Your task to perform on an android device: See recent photos Image 0: 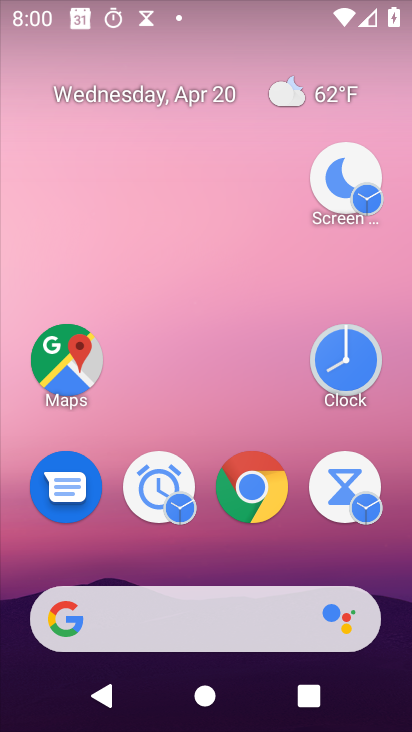
Step 0: drag from (360, 580) to (237, 185)
Your task to perform on an android device: See recent photos Image 1: 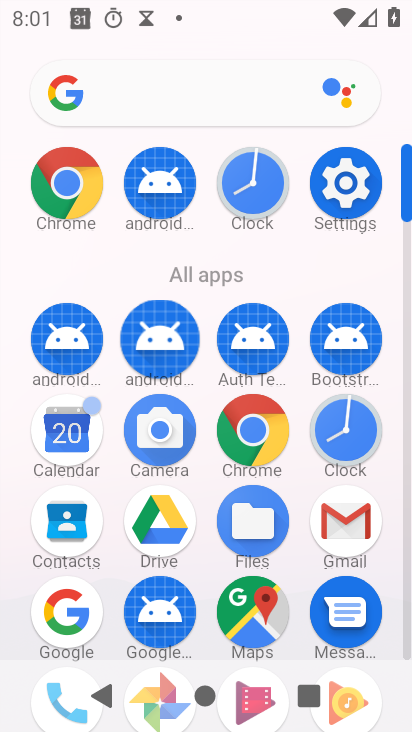
Step 1: drag from (211, 468) to (184, 160)
Your task to perform on an android device: See recent photos Image 2: 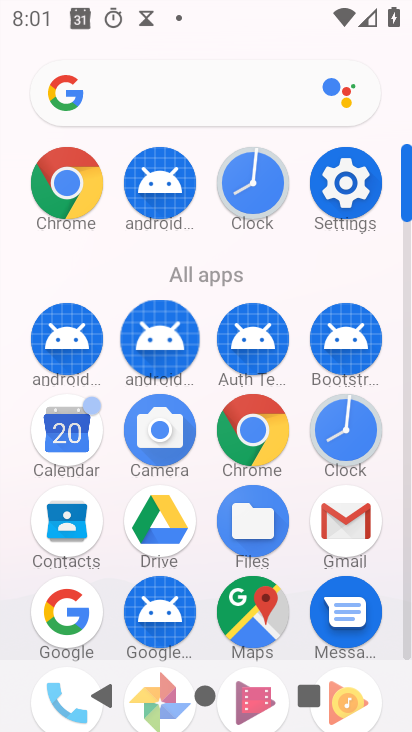
Step 2: drag from (281, 501) to (268, 118)
Your task to perform on an android device: See recent photos Image 3: 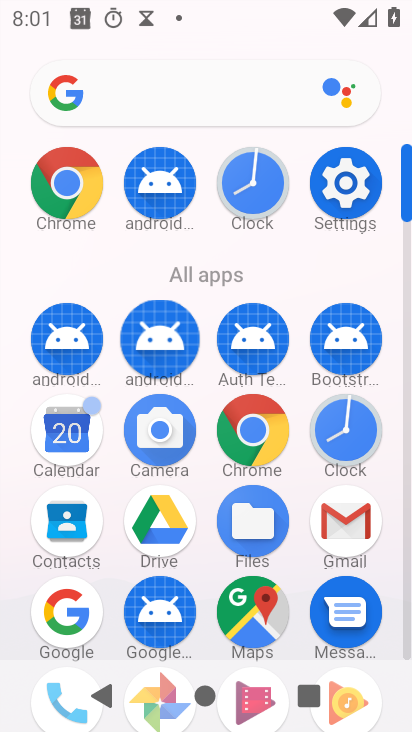
Step 3: click (196, 177)
Your task to perform on an android device: See recent photos Image 4: 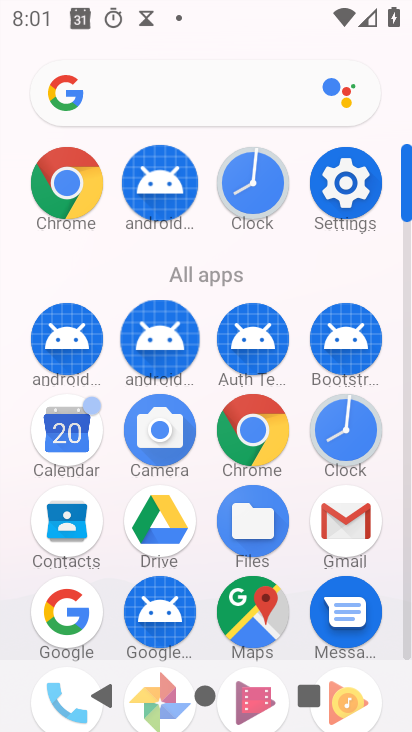
Step 4: click (184, 180)
Your task to perform on an android device: See recent photos Image 5: 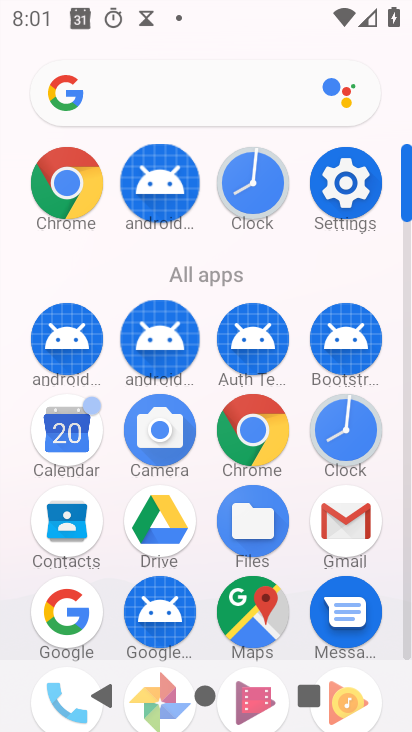
Step 5: drag from (202, 364) to (186, 232)
Your task to perform on an android device: See recent photos Image 6: 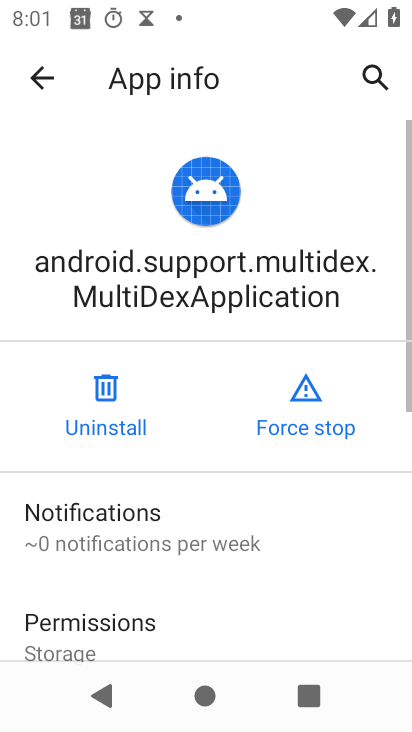
Step 6: drag from (186, 564) to (185, 201)
Your task to perform on an android device: See recent photos Image 7: 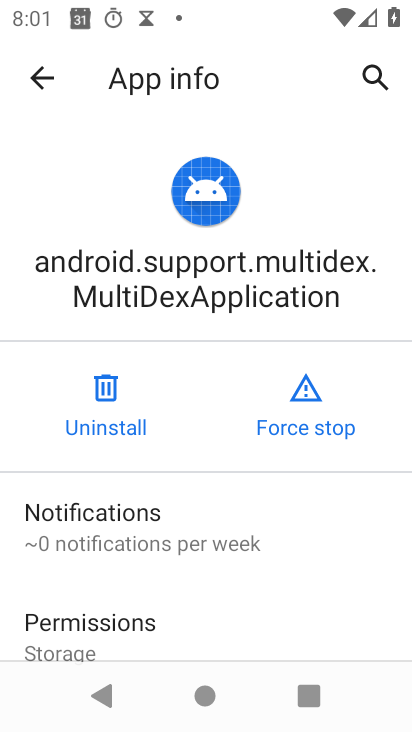
Step 7: click (48, 84)
Your task to perform on an android device: See recent photos Image 8: 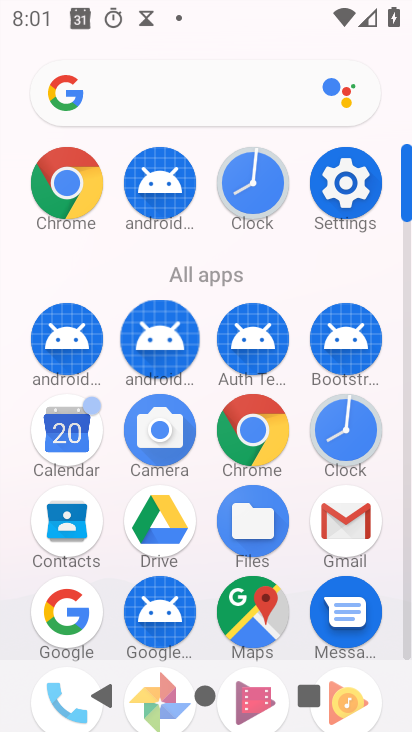
Step 8: drag from (245, 567) to (207, 312)
Your task to perform on an android device: See recent photos Image 9: 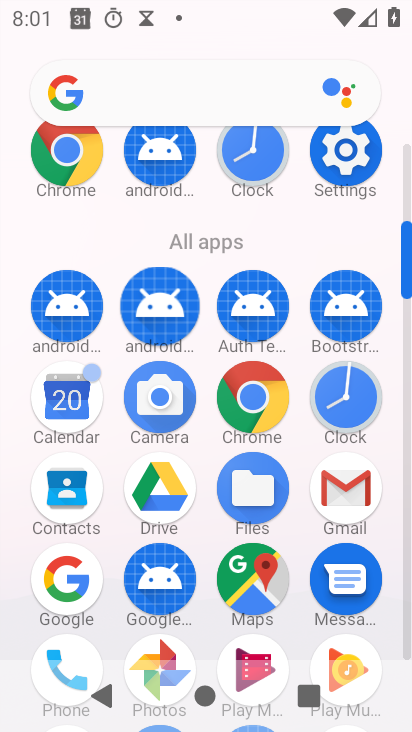
Step 9: drag from (231, 590) to (229, 255)
Your task to perform on an android device: See recent photos Image 10: 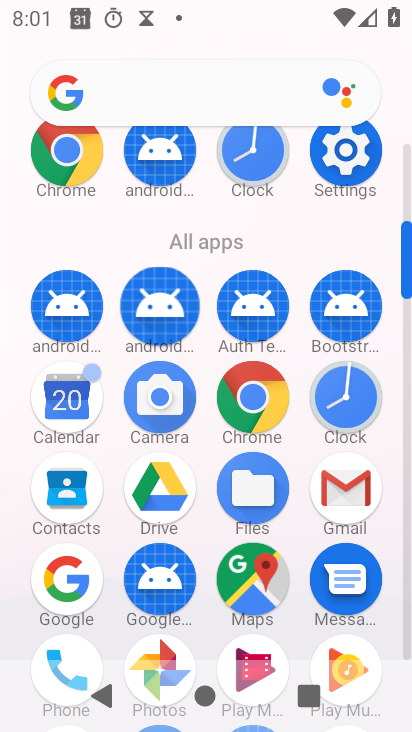
Step 10: drag from (200, 672) to (177, 223)
Your task to perform on an android device: See recent photos Image 11: 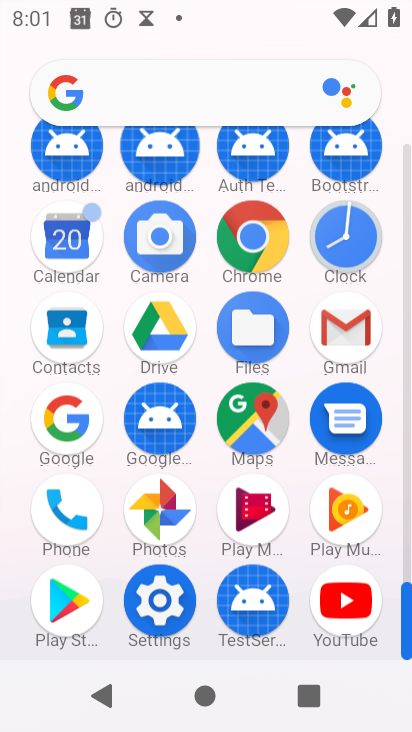
Step 11: drag from (211, 506) to (211, 306)
Your task to perform on an android device: See recent photos Image 12: 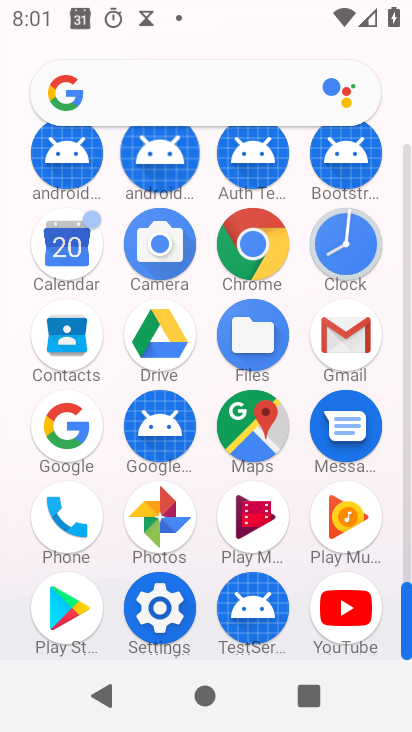
Step 12: click (168, 528)
Your task to perform on an android device: See recent photos Image 13: 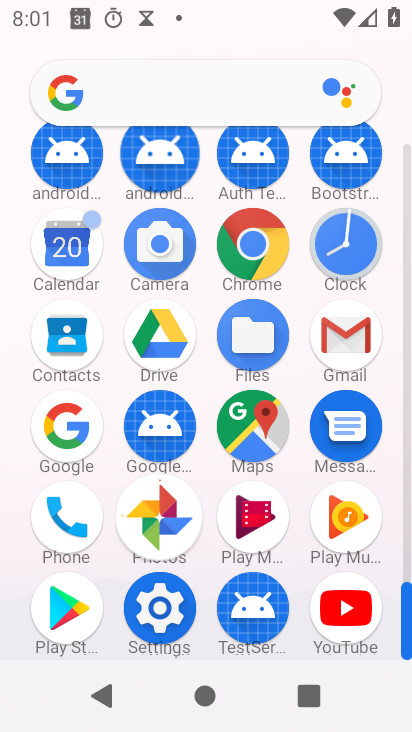
Step 13: click (168, 528)
Your task to perform on an android device: See recent photos Image 14: 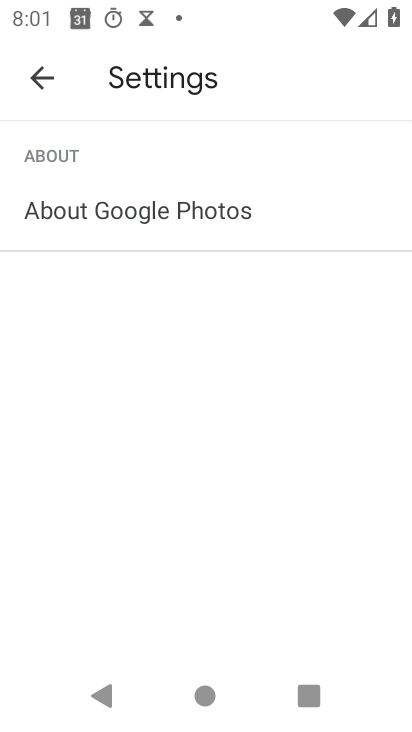
Step 14: click (33, 84)
Your task to perform on an android device: See recent photos Image 15: 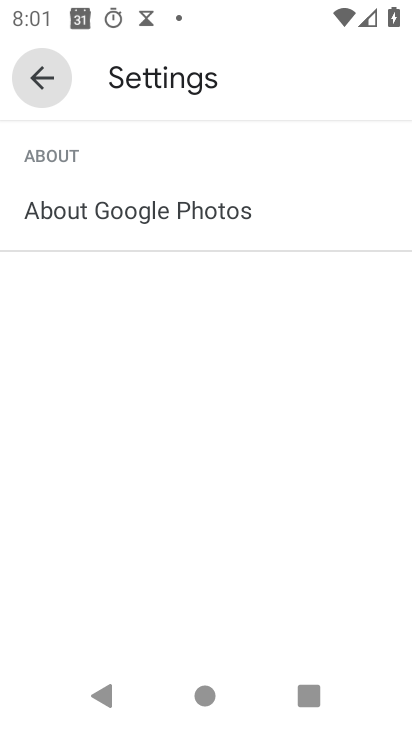
Step 15: click (34, 83)
Your task to perform on an android device: See recent photos Image 16: 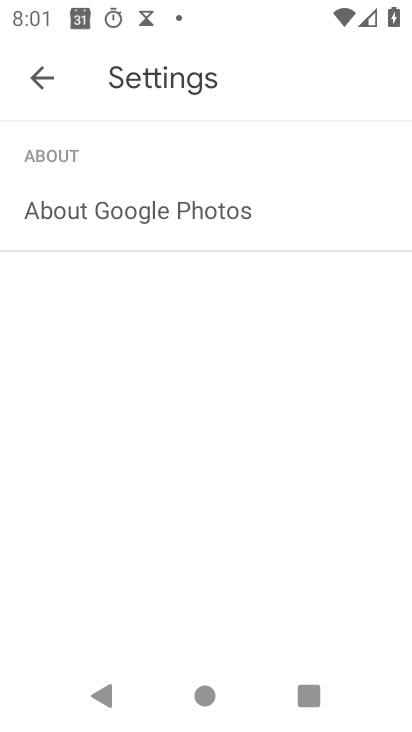
Step 16: click (34, 83)
Your task to perform on an android device: See recent photos Image 17: 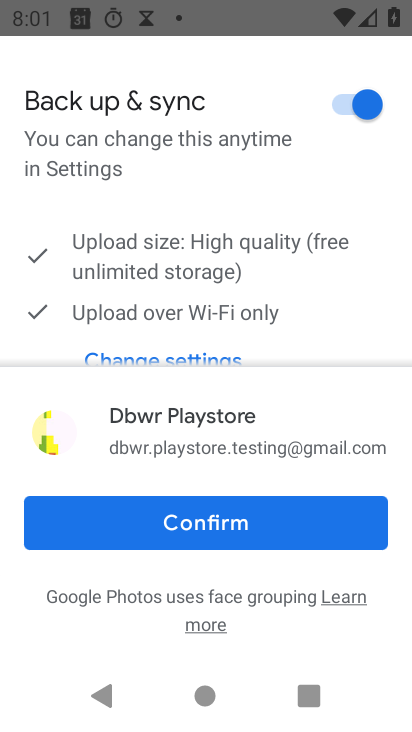
Step 17: click (190, 524)
Your task to perform on an android device: See recent photos Image 18: 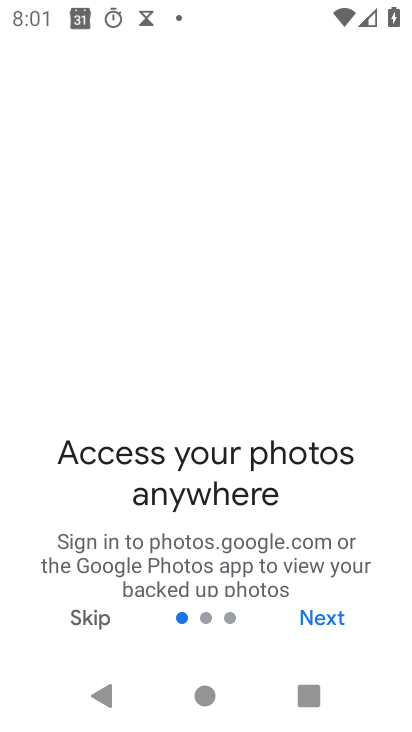
Step 18: click (80, 618)
Your task to perform on an android device: See recent photos Image 19: 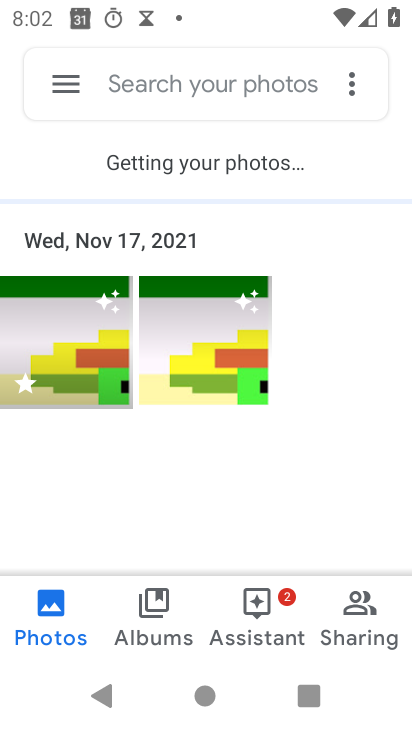
Step 19: task complete